Your task to perform on an android device: Show me the alarms in the clock app Image 0: 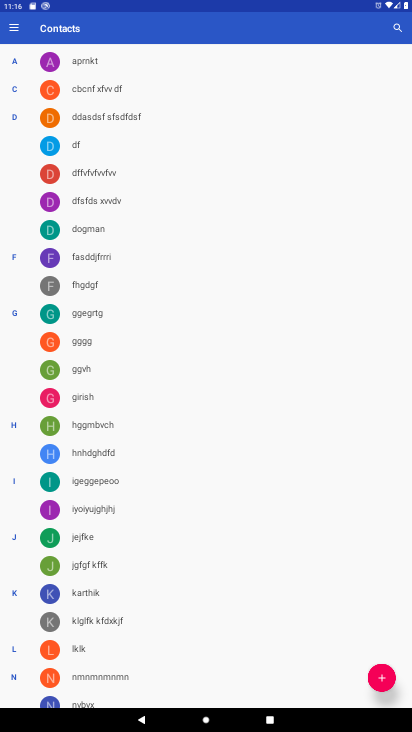
Step 0: press home button
Your task to perform on an android device: Show me the alarms in the clock app Image 1: 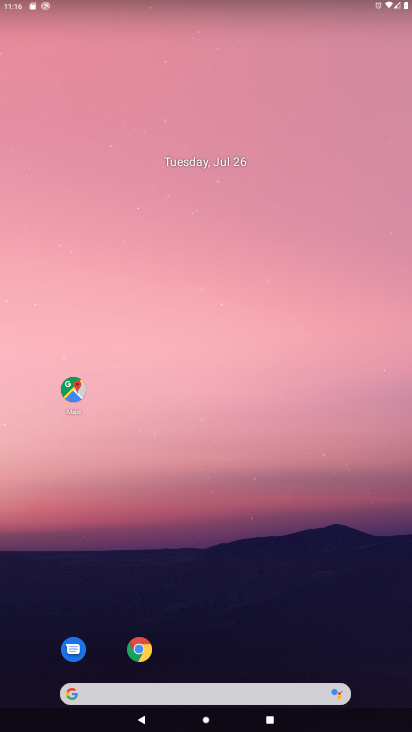
Step 1: drag from (215, 629) to (230, 295)
Your task to perform on an android device: Show me the alarms in the clock app Image 2: 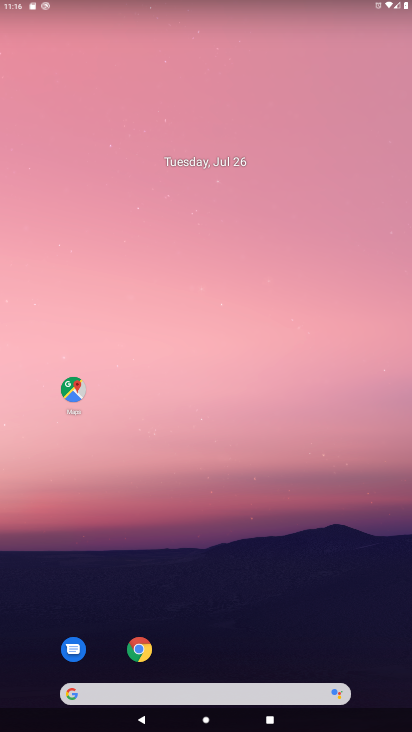
Step 2: drag from (264, 608) to (167, 4)
Your task to perform on an android device: Show me the alarms in the clock app Image 3: 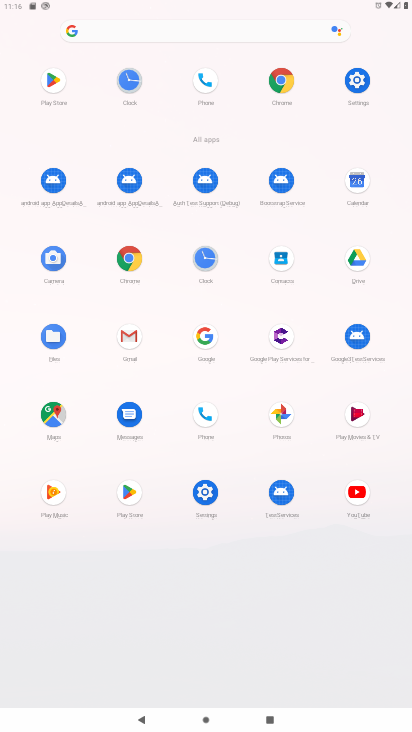
Step 3: click (205, 267)
Your task to perform on an android device: Show me the alarms in the clock app Image 4: 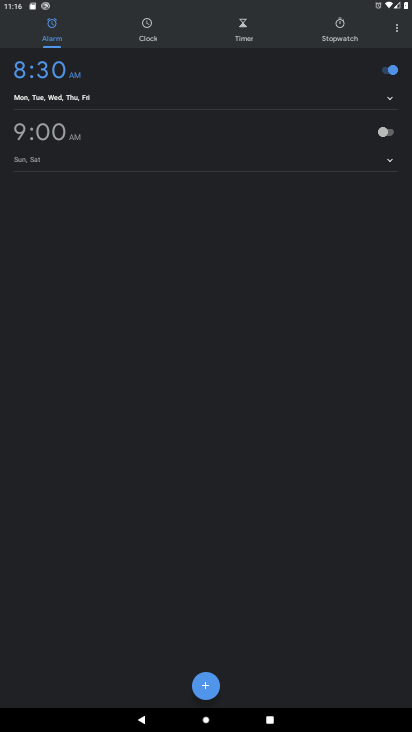
Step 4: task complete